Your task to perform on an android device: change the clock display to digital Image 0: 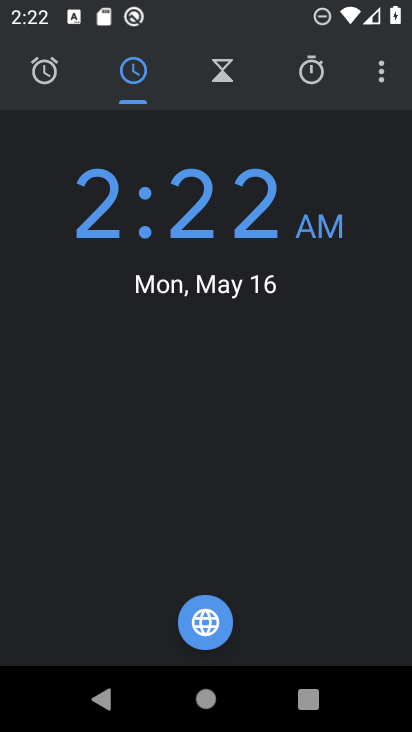
Step 0: press home button
Your task to perform on an android device: change the clock display to digital Image 1: 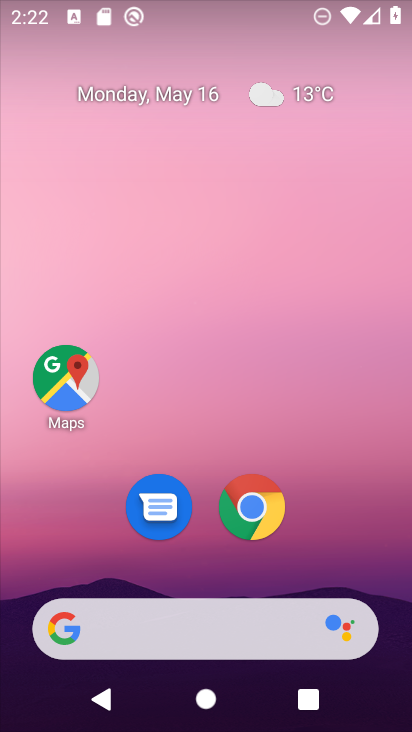
Step 1: drag from (276, 581) to (283, 266)
Your task to perform on an android device: change the clock display to digital Image 2: 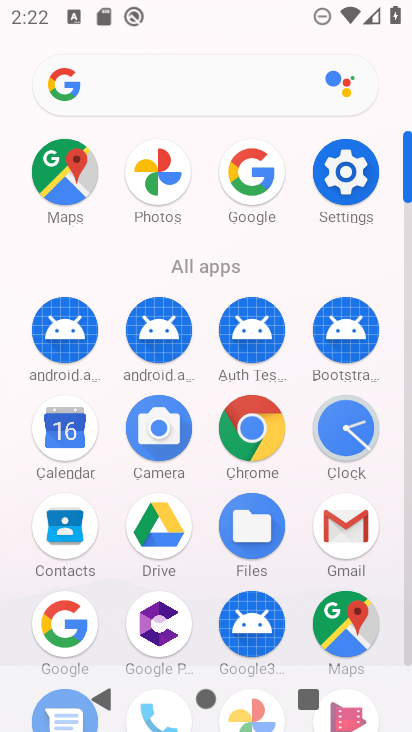
Step 2: click (328, 433)
Your task to perform on an android device: change the clock display to digital Image 3: 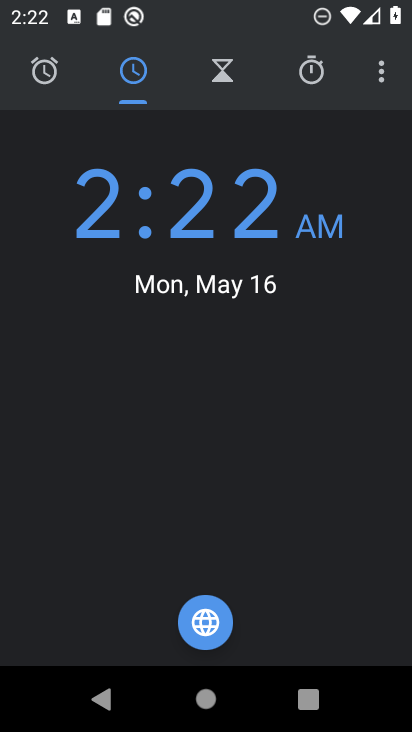
Step 3: click (375, 75)
Your task to perform on an android device: change the clock display to digital Image 4: 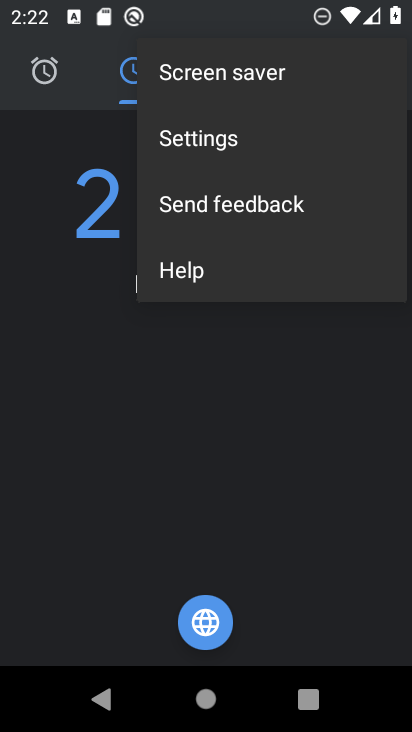
Step 4: click (294, 132)
Your task to perform on an android device: change the clock display to digital Image 5: 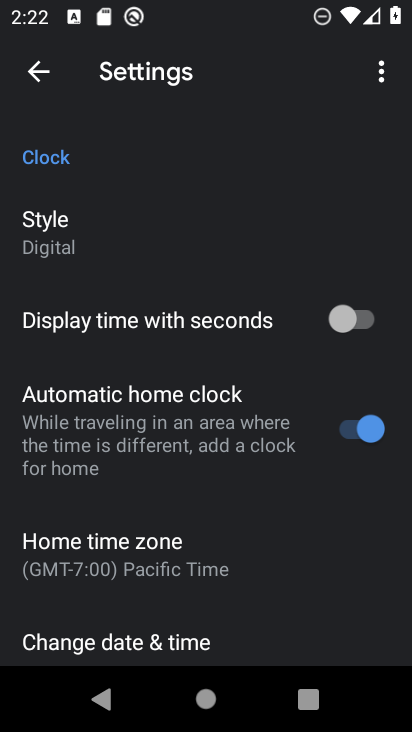
Step 5: task complete